Your task to perform on an android device: Set the phone to "Do not disturb". Image 0: 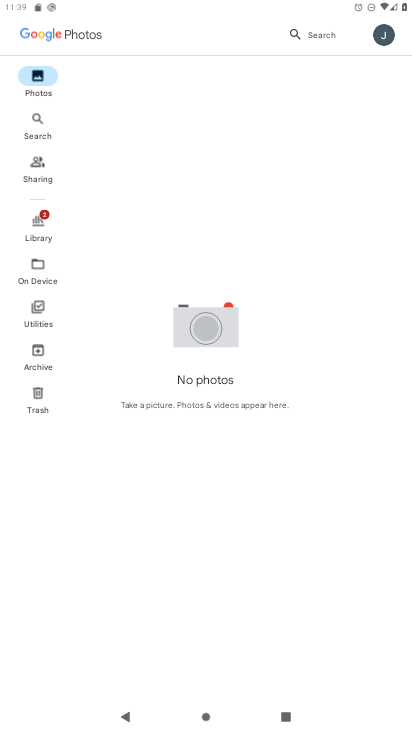
Step 0: press home button
Your task to perform on an android device: Set the phone to "Do not disturb". Image 1: 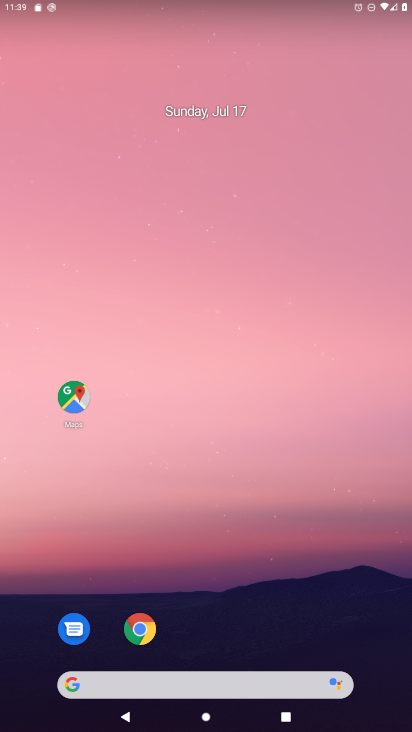
Step 1: drag from (189, 680) to (316, 104)
Your task to perform on an android device: Set the phone to "Do not disturb". Image 2: 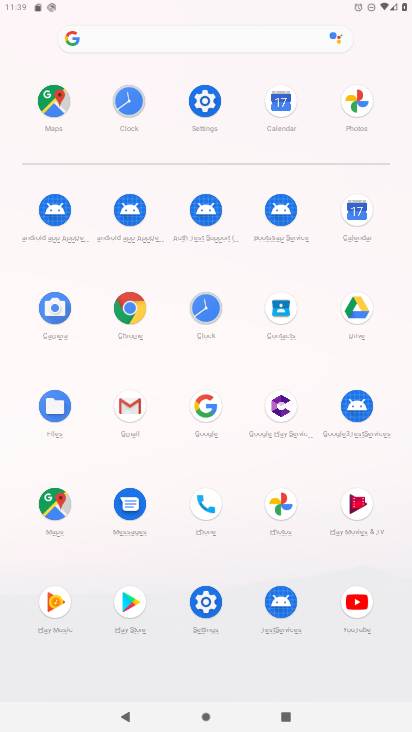
Step 2: click (204, 600)
Your task to perform on an android device: Set the phone to "Do not disturb". Image 3: 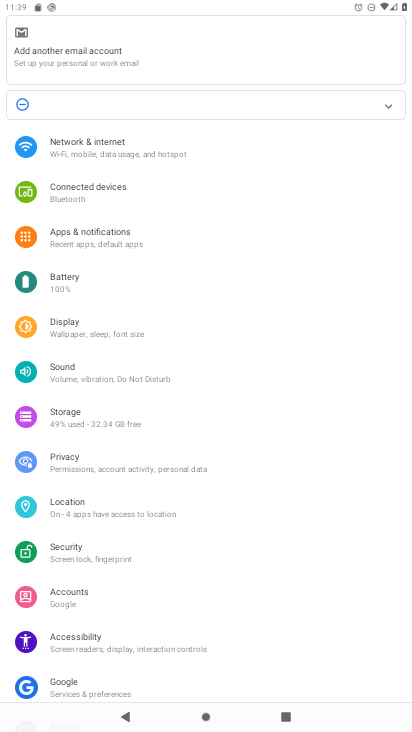
Step 3: click (113, 382)
Your task to perform on an android device: Set the phone to "Do not disturb". Image 4: 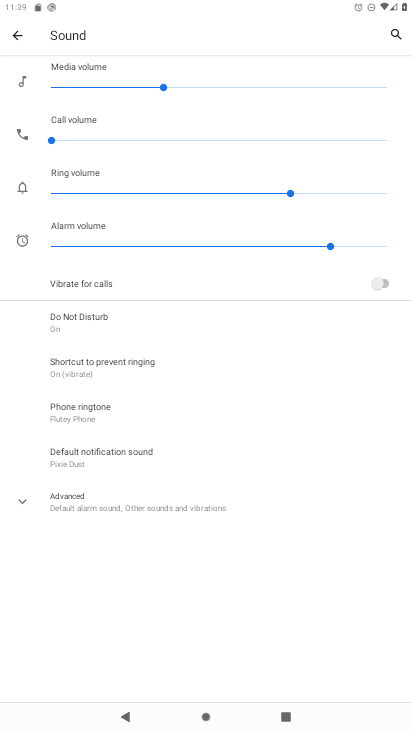
Step 4: click (105, 314)
Your task to perform on an android device: Set the phone to "Do not disturb". Image 5: 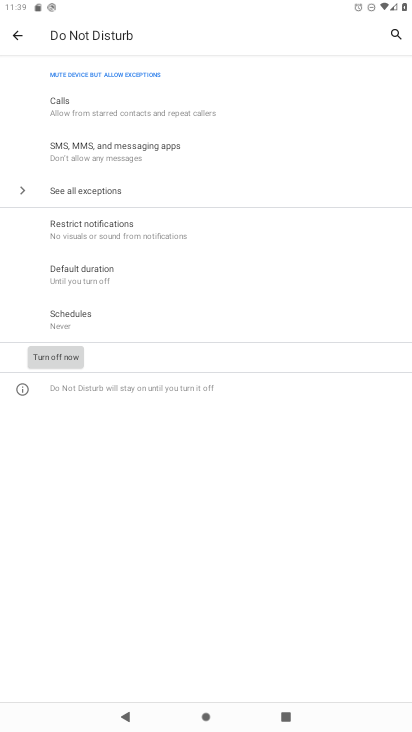
Step 5: task complete